Your task to perform on an android device: Go to display settings Image 0: 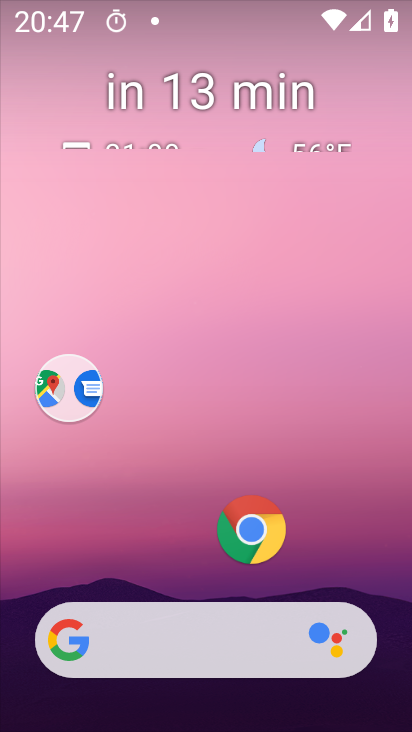
Step 0: drag from (190, 576) to (182, 98)
Your task to perform on an android device: Go to display settings Image 1: 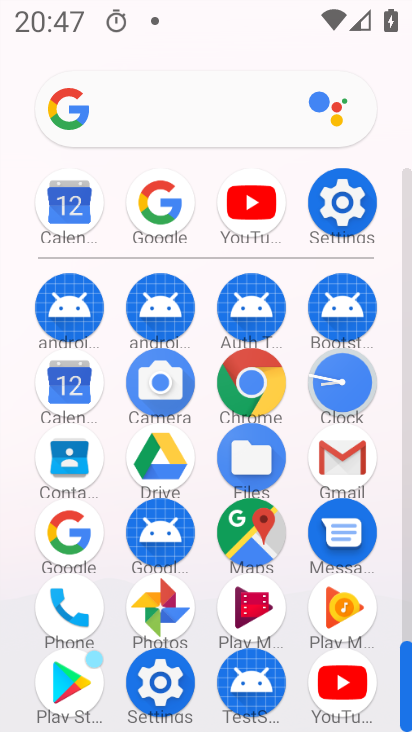
Step 1: click (342, 204)
Your task to perform on an android device: Go to display settings Image 2: 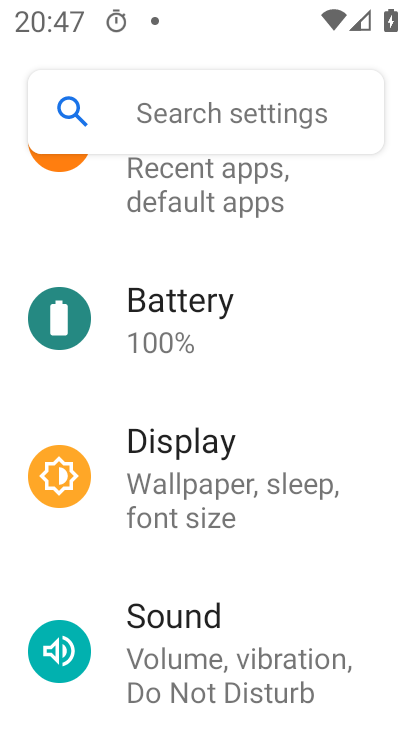
Step 2: click (204, 486)
Your task to perform on an android device: Go to display settings Image 3: 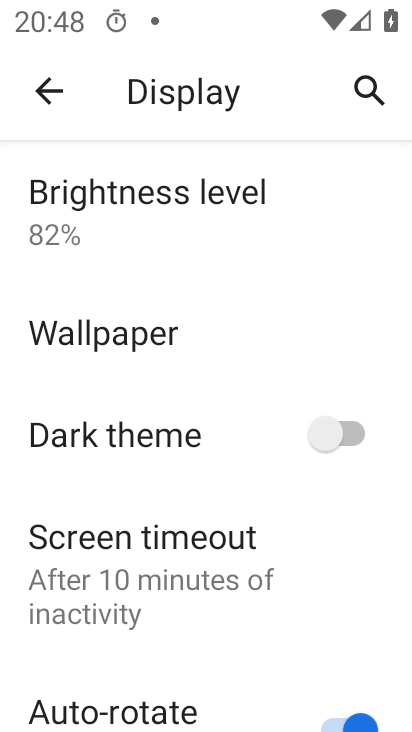
Step 3: task complete